Your task to perform on an android device: open a bookmark in the chrome app Image 0: 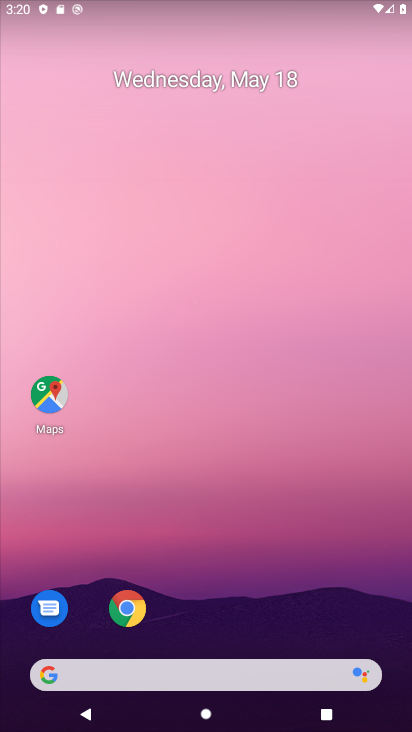
Step 0: click (133, 602)
Your task to perform on an android device: open a bookmark in the chrome app Image 1: 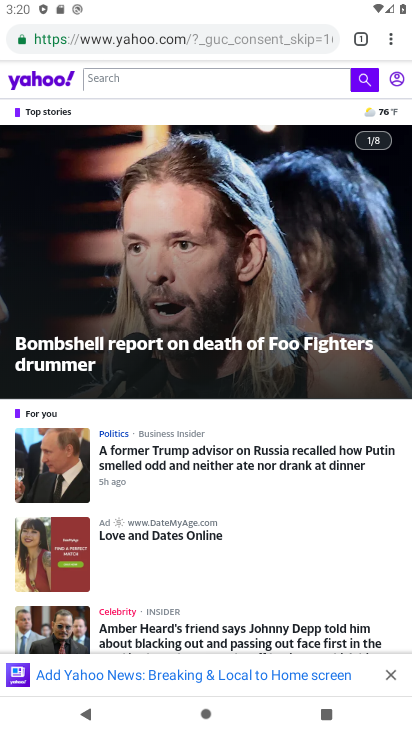
Step 1: click (399, 31)
Your task to perform on an android device: open a bookmark in the chrome app Image 2: 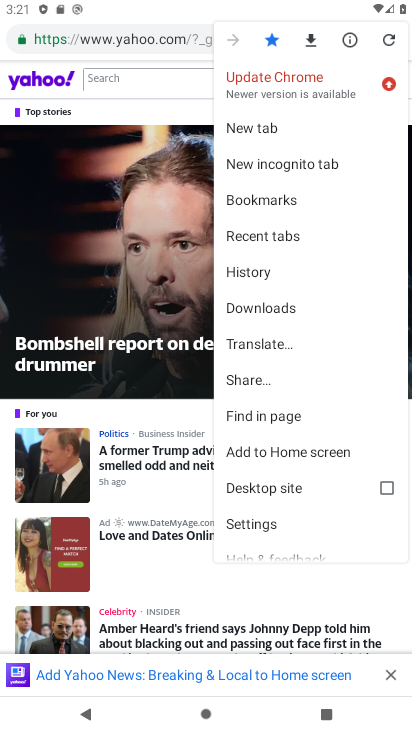
Step 2: click (282, 195)
Your task to perform on an android device: open a bookmark in the chrome app Image 3: 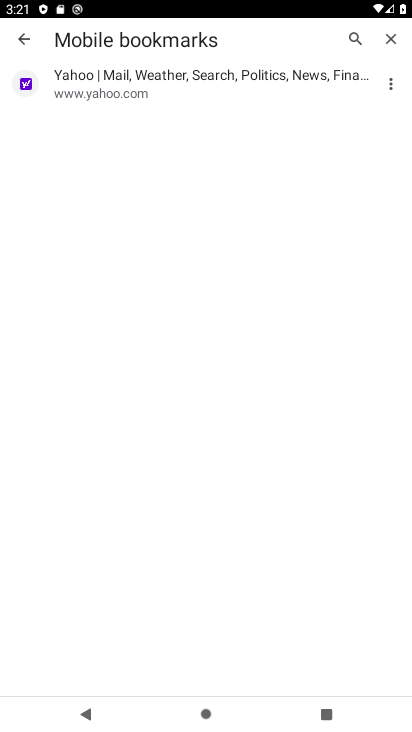
Step 3: click (226, 83)
Your task to perform on an android device: open a bookmark in the chrome app Image 4: 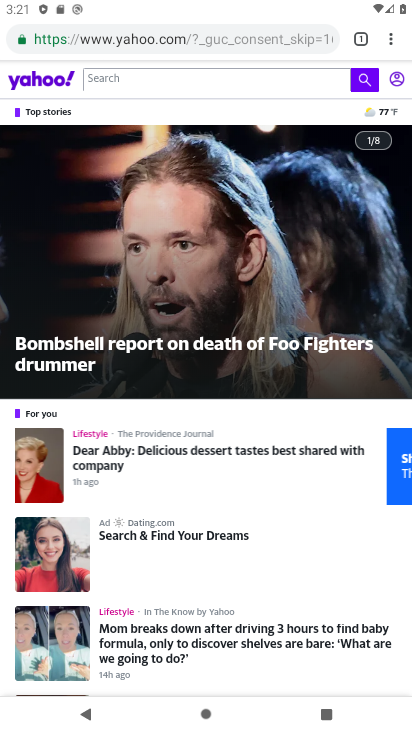
Step 4: task complete